Your task to perform on an android device: Open Youtube and go to "Your channel" Image 0: 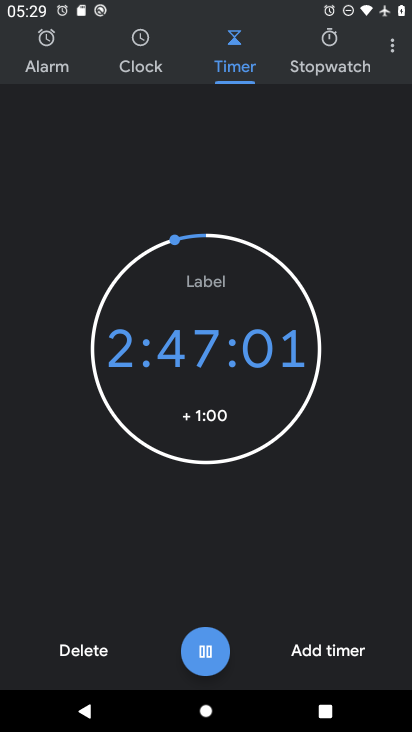
Step 0: press back button
Your task to perform on an android device: Open Youtube and go to "Your channel" Image 1: 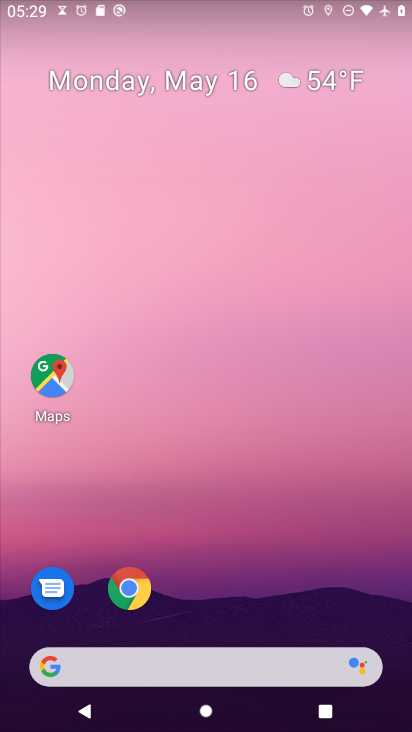
Step 1: drag from (284, 578) to (243, 31)
Your task to perform on an android device: Open Youtube and go to "Your channel" Image 2: 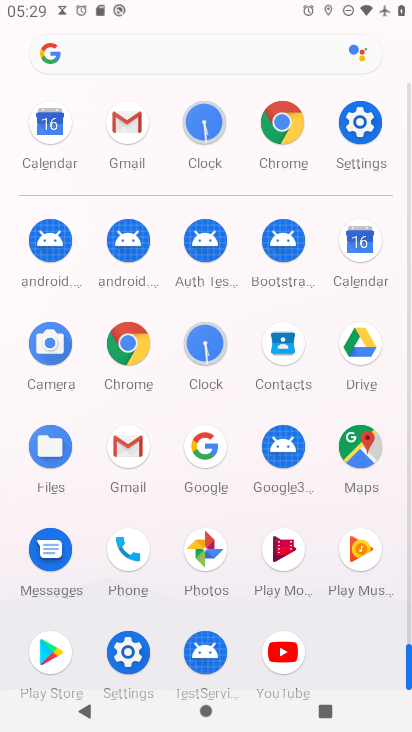
Step 2: click (285, 643)
Your task to perform on an android device: Open Youtube and go to "Your channel" Image 3: 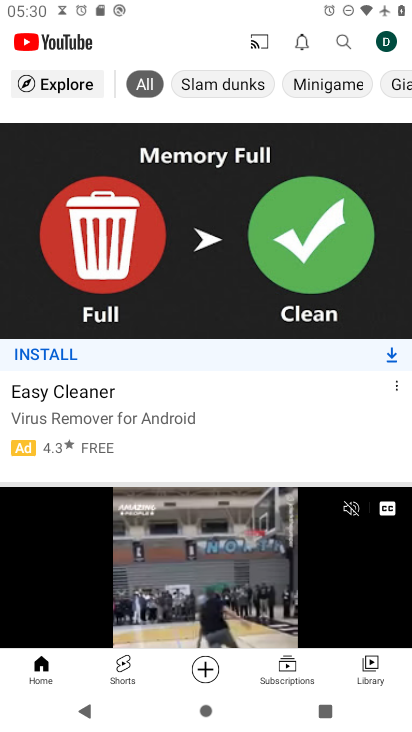
Step 3: click (380, 666)
Your task to perform on an android device: Open Youtube and go to "Your channel" Image 4: 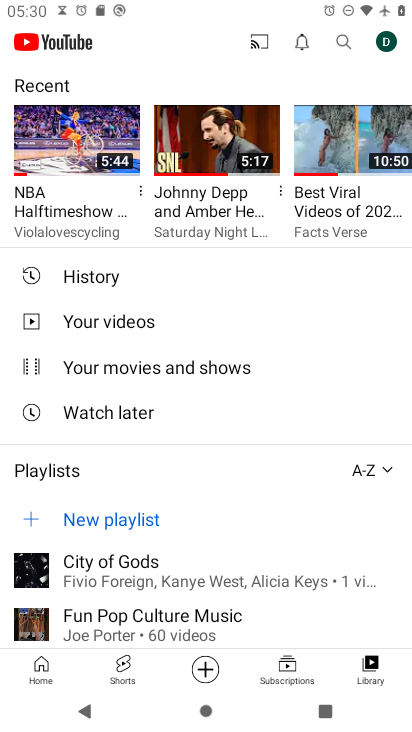
Step 4: click (358, 664)
Your task to perform on an android device: Open Youtube and go to "Your channel" Image 5: 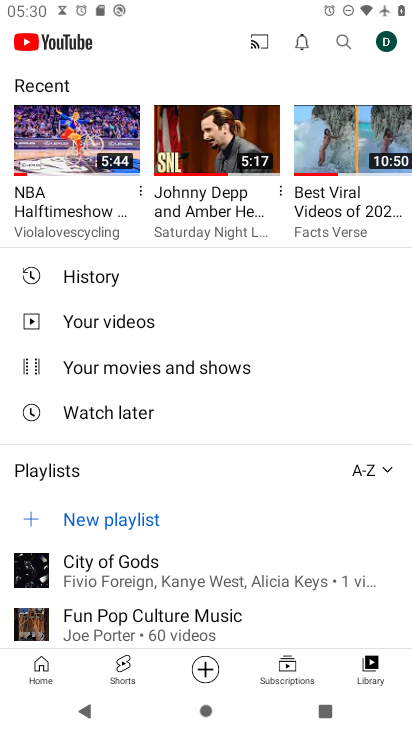
Step 5: click (53, 670)
Your task to perform on an android device: Open Youtube and go to "Your channel" Image 6: 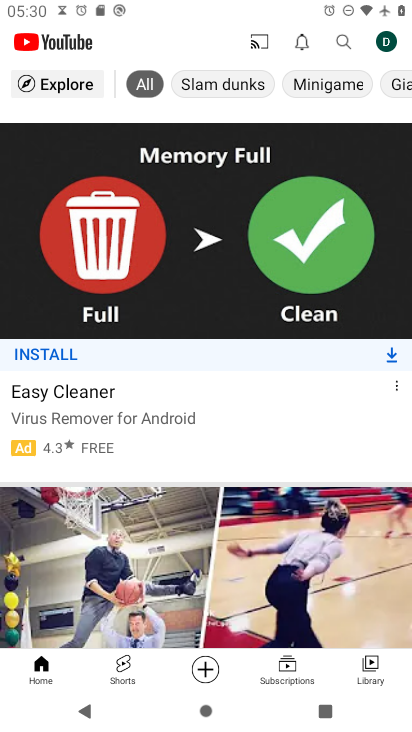
Step 6: click (386, 669)
Your task to perform on an android device: Open Youtube and go to "Your channel" Image 7: 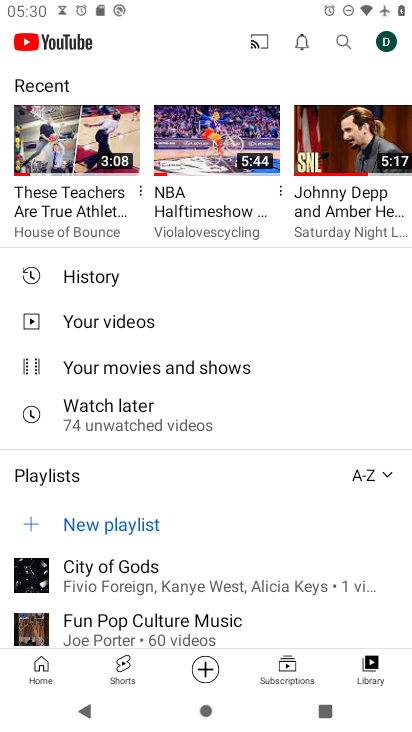
Step 7: click (120, 325)
Your task to perform on an android device: Open Youtube and go to "Your channel" Image 8: 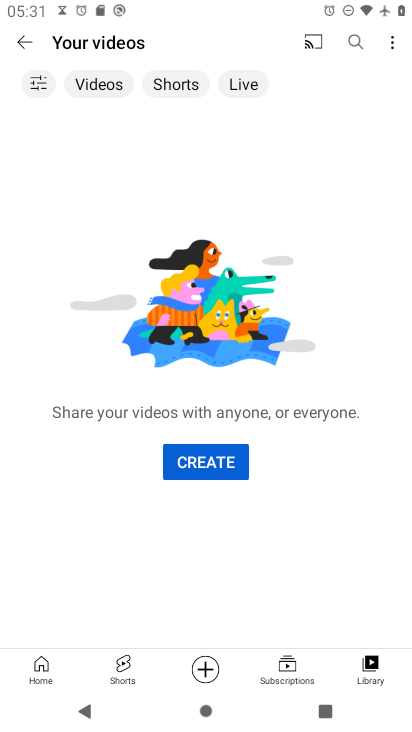
Step 8: task complete